Your task to perform on an android device: Open display settings Image 0: 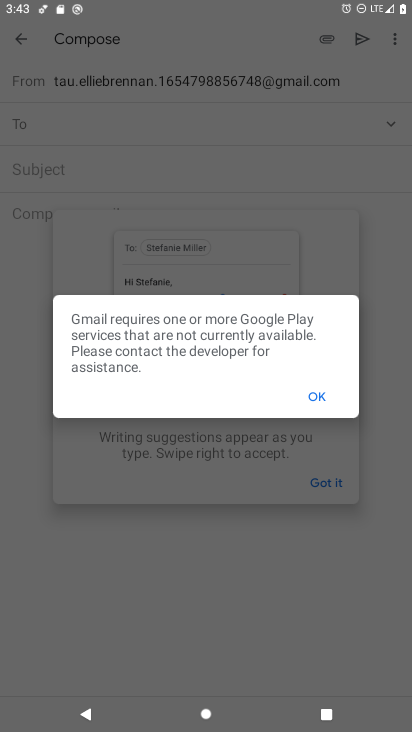
Step 0: press home button
Your task to perform on an android device: Open display settings Image 1: 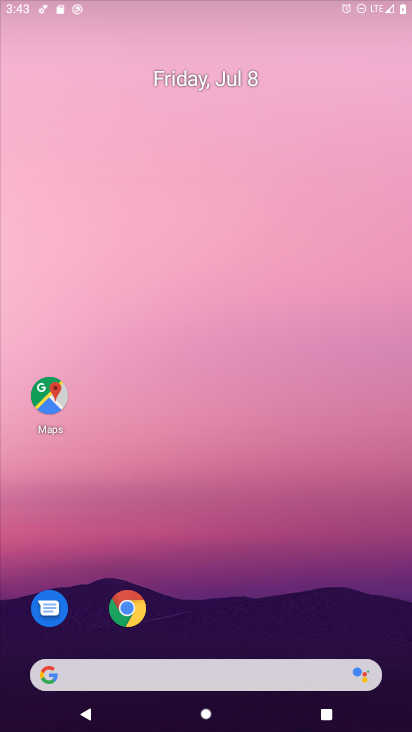
Step 1: drag from (286, 603) to (323, 29)
Your task to perform on an android device: Open display settings Image 2: 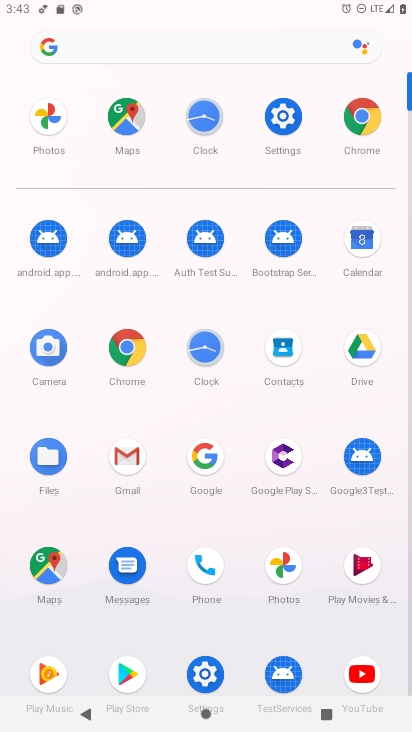
Step 2: click (286, 104)
Your task to perform on an android device: Open display settings Image 3: 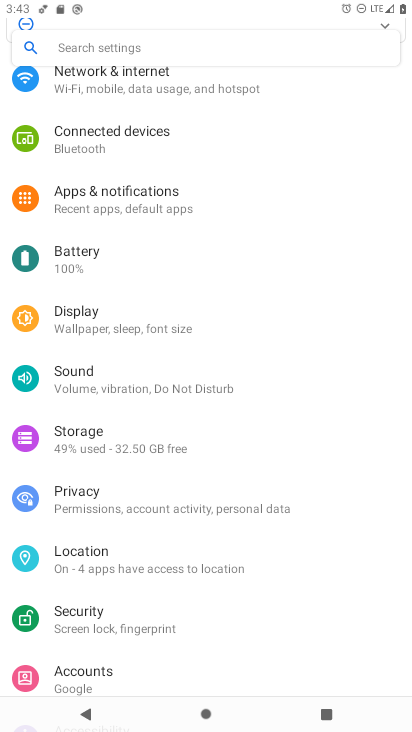
Step 3: click (82, 316)
Your task to perform on an android device: Open display settings Image 4: 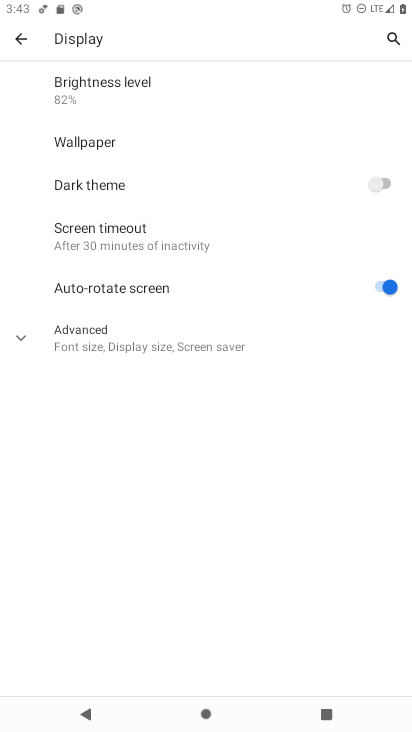
Step 4: task complete